Your task to perform on an android device: Open Google Maps and go to "Timeline" Image 0: 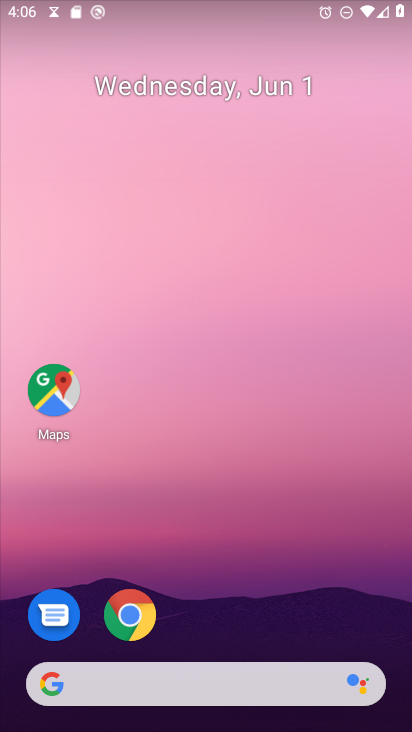
Step 0: press home button
Your task to perform on an android device: Open Google Maps and go to "Timeline" Image 1: 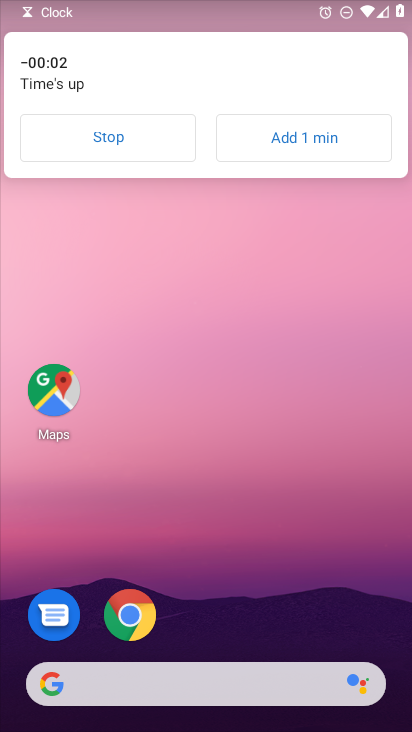
Step 1: click (100, 140)
Your task to perform on an android device: Open Google Maps and go to "Timeline" Image 2: 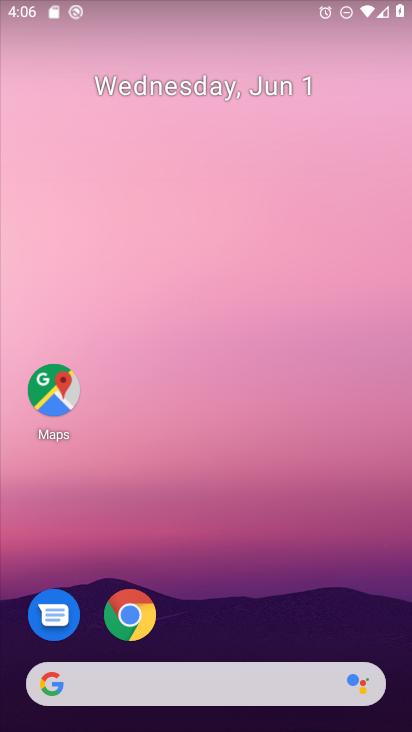
Step 2: click (53, 385)
Your task to perform on an android device: Open Google Maps and go to "Timeline" Image 3: 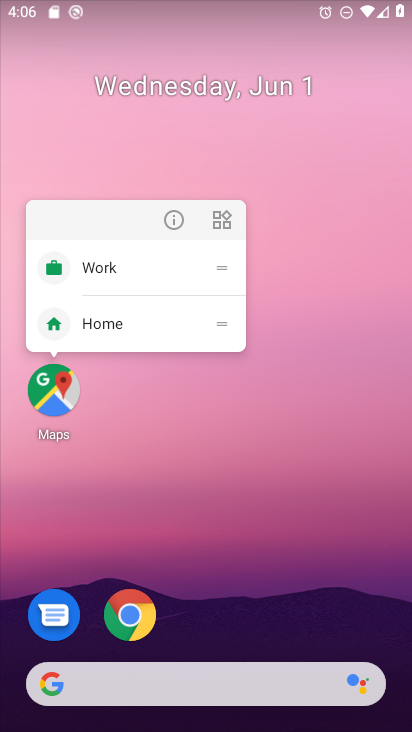
Step 3: click (55, 386)
Your task to perform on an android device: Open Google Maps and go to "Timeline" Image 4: 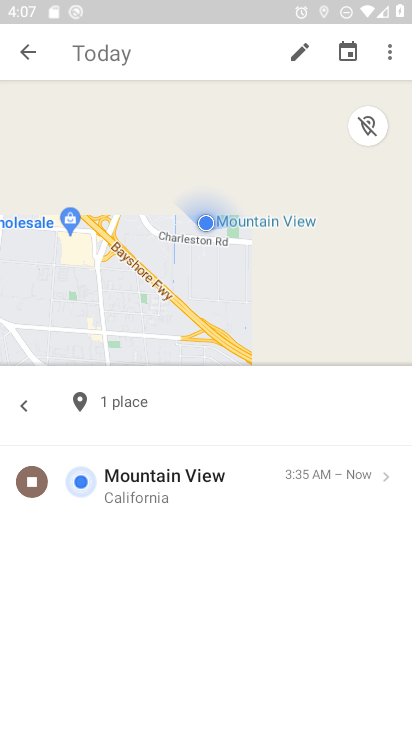
Step 4: task complete